Your task to perform on an android device: open app "Speedtest by Ookla" (install if not already installed) Image 0: 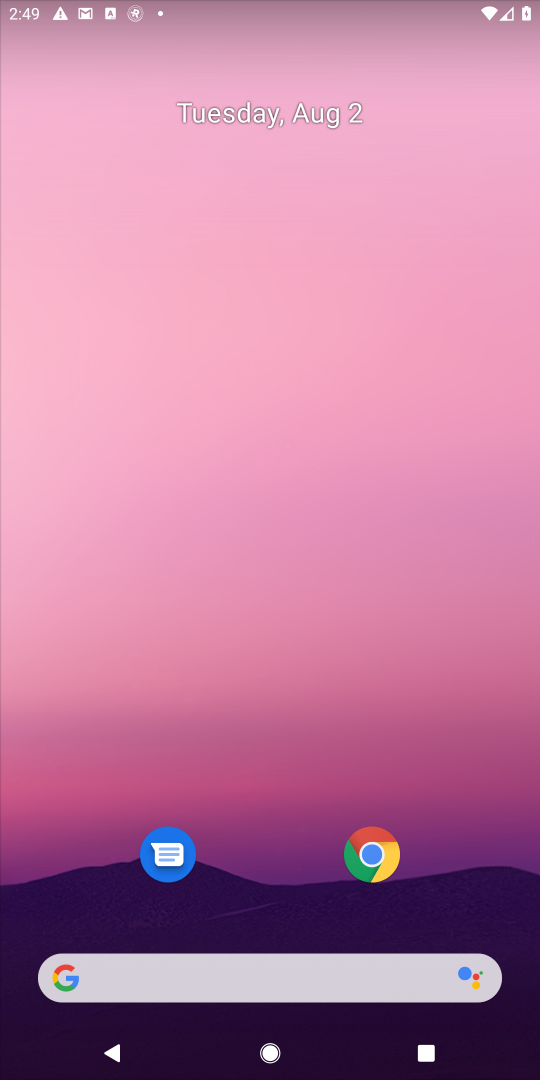
Step 0: drag from (291, 995) to (279, 117)
Your task to perform on an android device: open app "Speedtest by Ookla" (install if not already installed) Image 1: 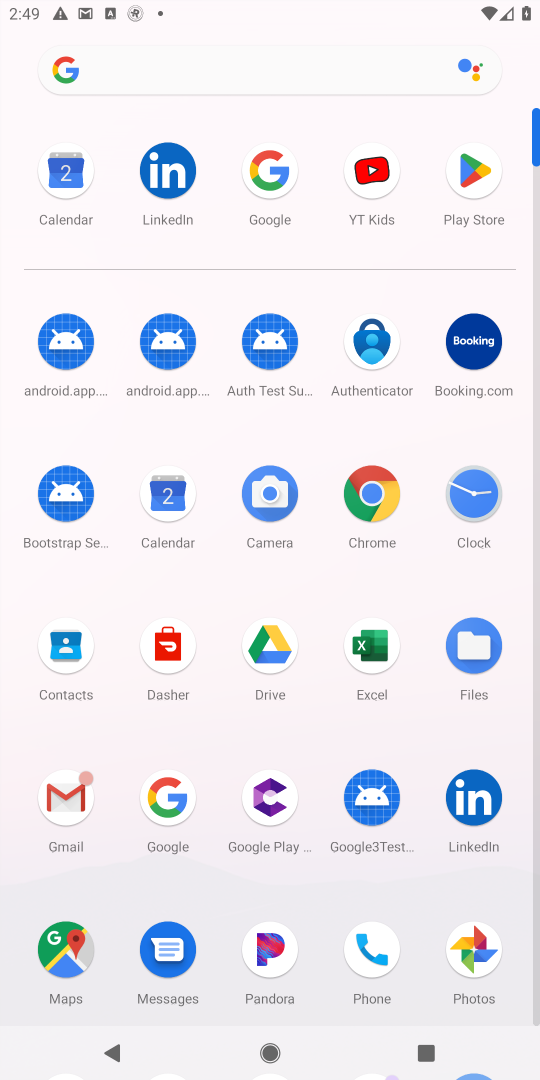
Step 1: drag from (419, 904) to (429, 291)
Your task to perform on an android device: open app "Speedtest by Ookla" (install if not already installed) Image 2: 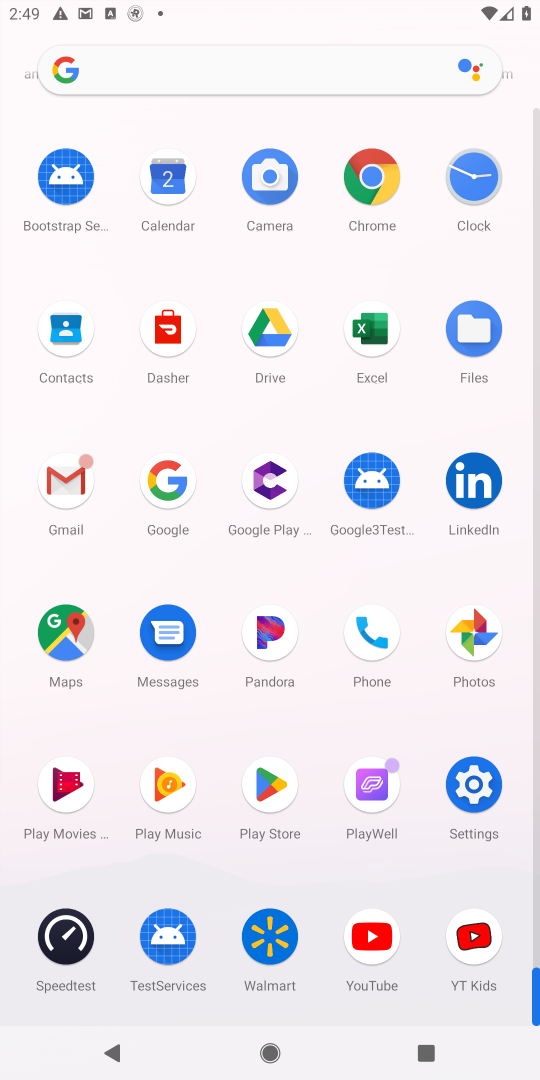
Step 2: click (69, 947)
Your task to perform on an android device: open app "Speedtest by Ookla" (install if not already installed) Image 3: 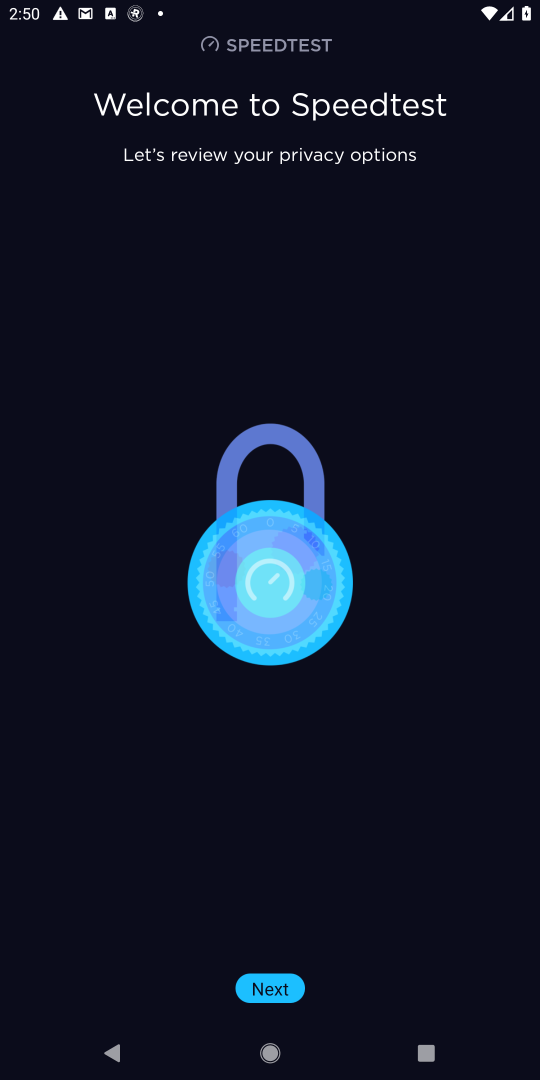
Step 3: task complete